Your task to perform on an android device: turn off notifications settings in the gmail app Image 0: 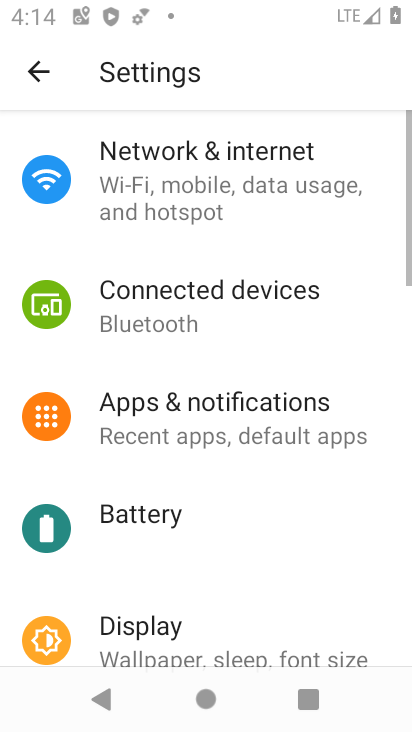
Step 0: press home button
Your task to perform on an android device: turn off notifications settings in the gmail app Image 1: 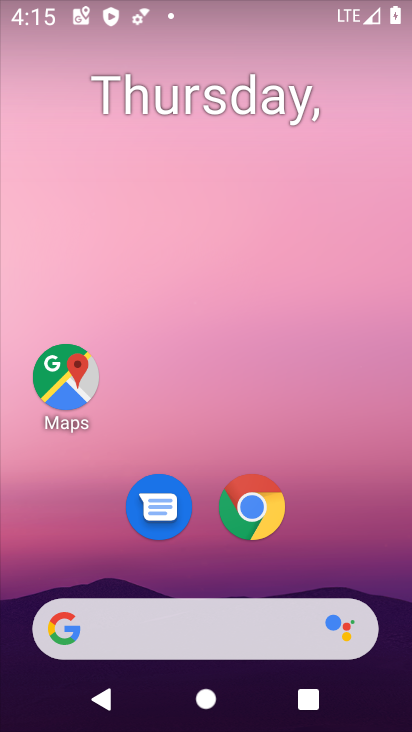
Step 1: drag from (380, 549) to (359, 68)
Your task to perform on an android device: turn off notifications settings in the gmail app Image 2: 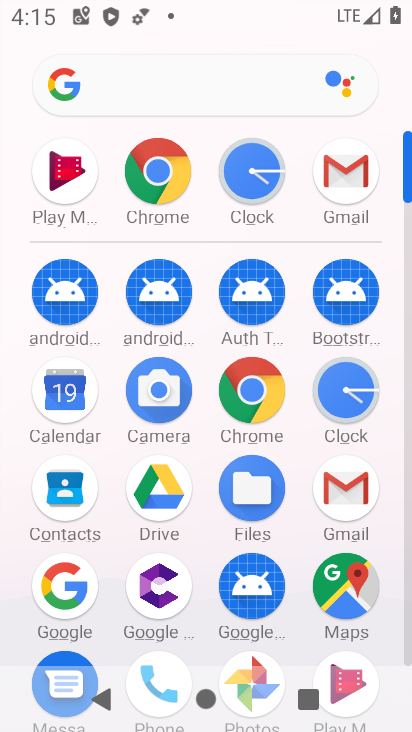
Step 2: click (349, 511)
Your task to perform on an android device: turn off notifications settings in the gmail app Image 3: 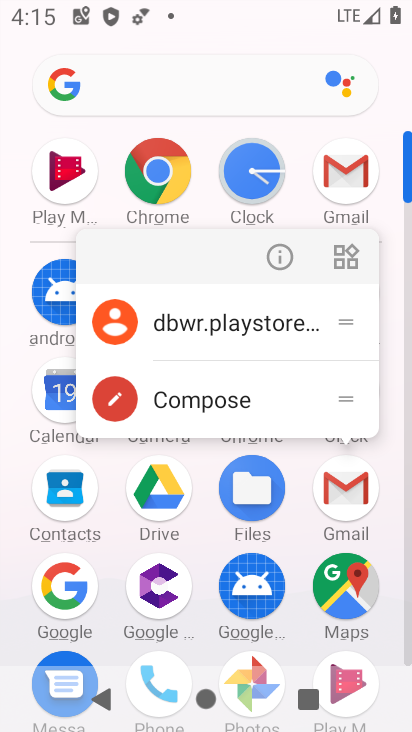
Step 3: click (349, 511)
Your task to perform on an android device: turn off notifications settings in the gmail app Image 4: 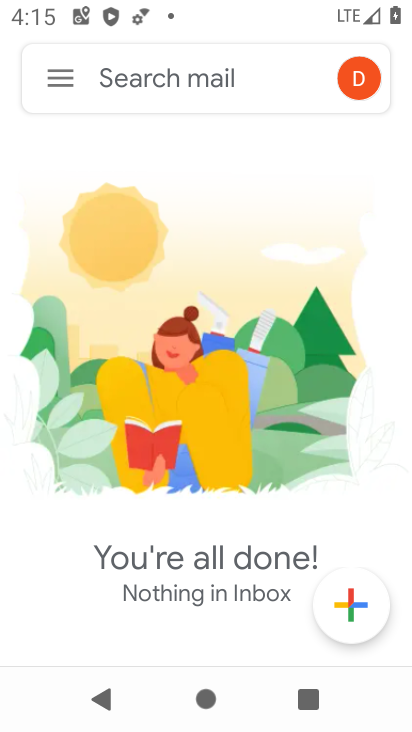
Step 4: press back button
Your task to perform on an android device: turn off notifications settings in the gmail app Image 5: 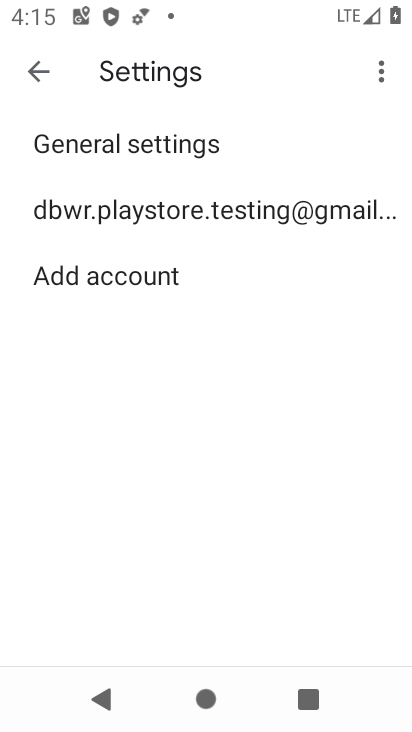
Step 5: press home button
Your task to perform on an android device: turn off notifications settings in the gmail app Image 6: 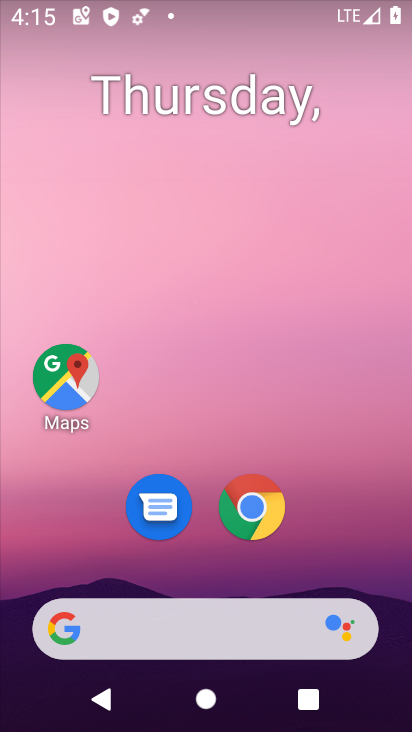
Step 6: drag from (398, 564) to (380, 214)
Your task to perform on an android device: turn off notifications settings in the gmail app Image 7: 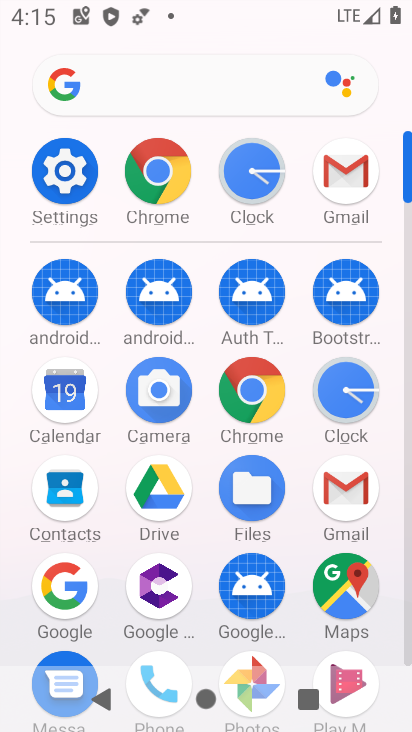
Step 7: click (341, 185)
Your task to perform on an android device: turn off notifications settings in the gmail app Image 8: 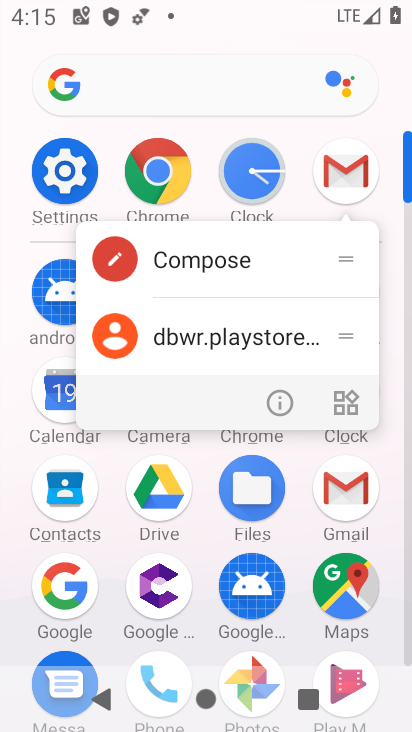
Step 8: click (273, 401)
Your task to perform on an android device: turn off notifications settings in the gmail app Image 9: 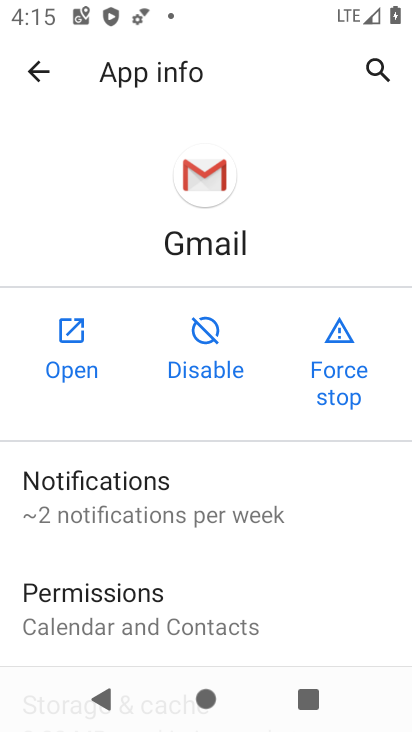
Step 9: click (183, 507)
Your task to perform on an android device: turn off notifications settings in the gmail app Image 10: 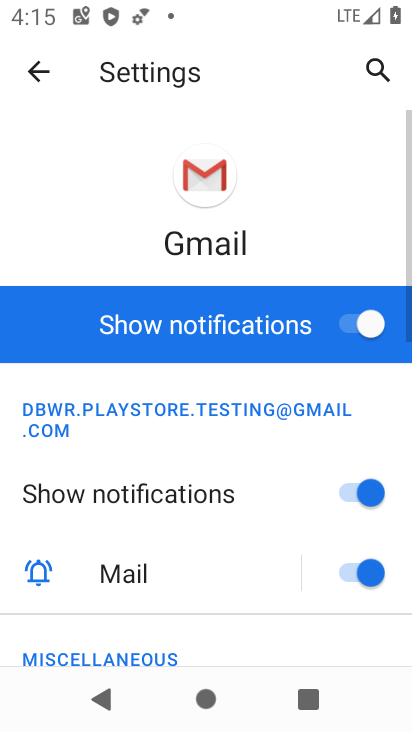
Step 10: click (361, 329)
Your task to perform on an android device: turn off notifications settings in the gmail app Image 11: 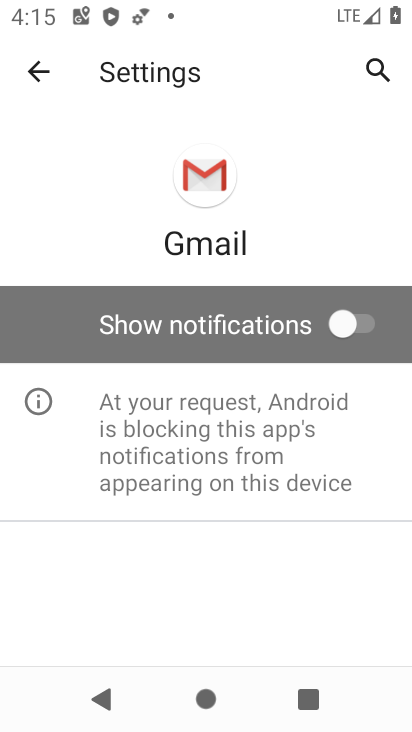
Step 11: task complete